Your task to perform on an android device: add a contact Image 0: 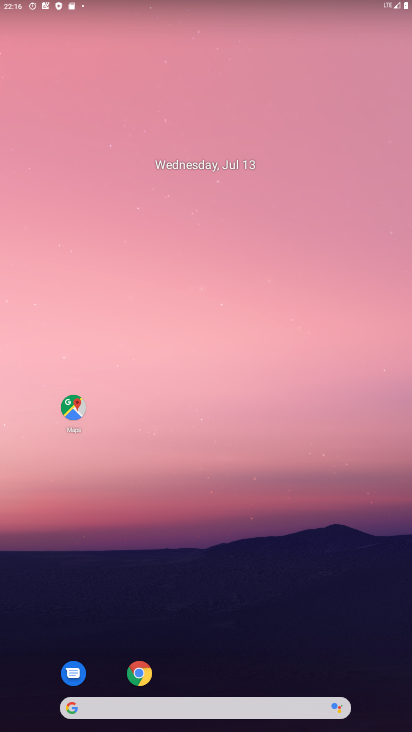
Step 0: drag from (178, 654) to (216, 310)
Your task to perform on an android device: add a contact Image 1: 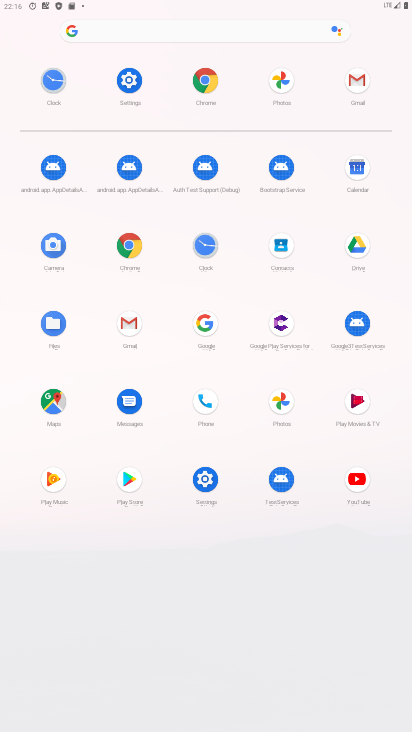
Step 1: click (367, 165)
Your task to perform on an android device: add a contact Image 2: 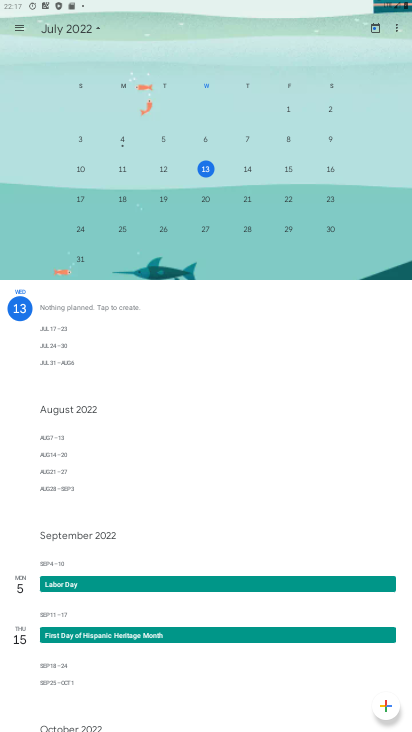
Step 2: press home button
Your task to perform on an android device: add a contact Image 3: 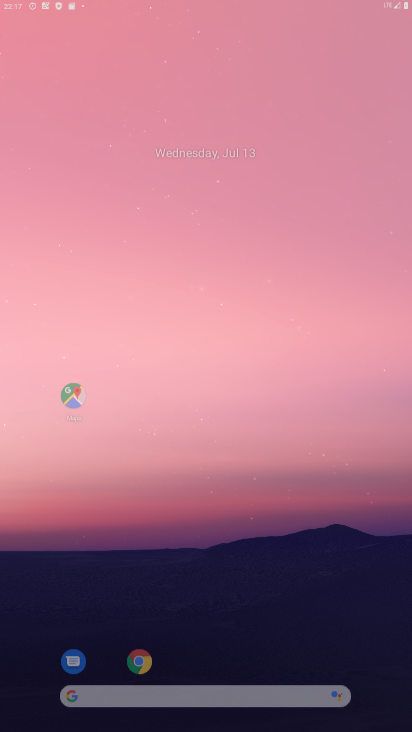
Step 3: drag from (179, 616) to (274, 24)
Your task to perform on an android device: add a contact Image 4: 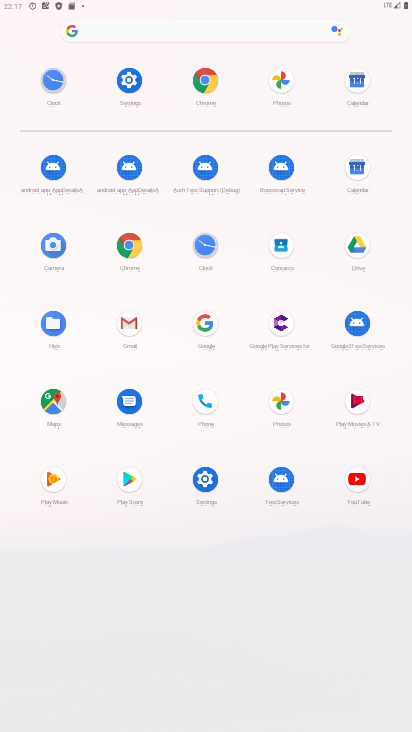
Step 4: click (274, 246)
Your task to perform on an android device: add a contact Image 5: 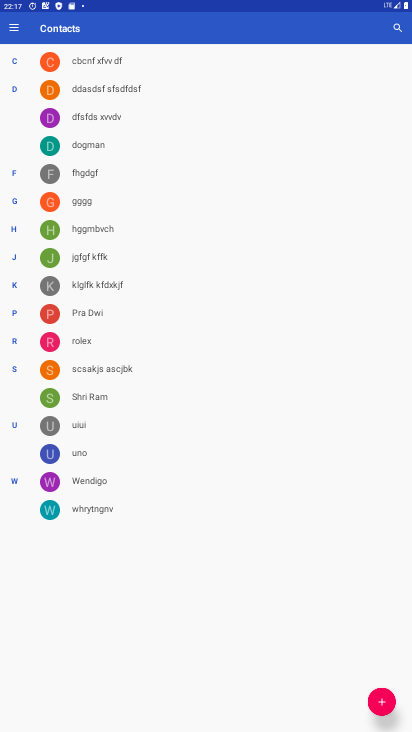
Step 5: click (384, 705)
Your task to perform on an android device: add a contact Image 6: 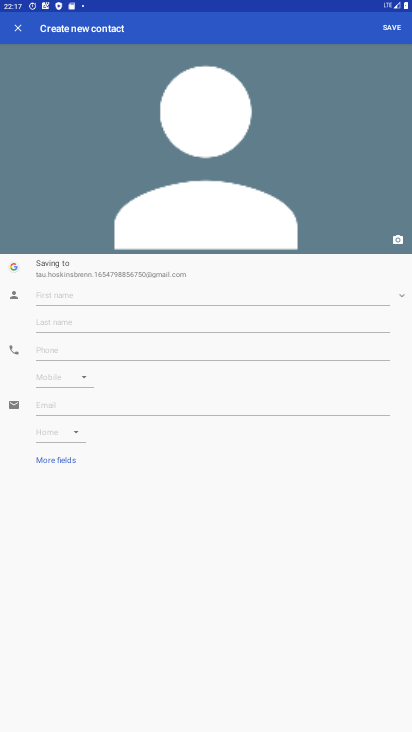
Step 6: click (95, 300)
Your task to perform on an android device: add a contact Image 7: 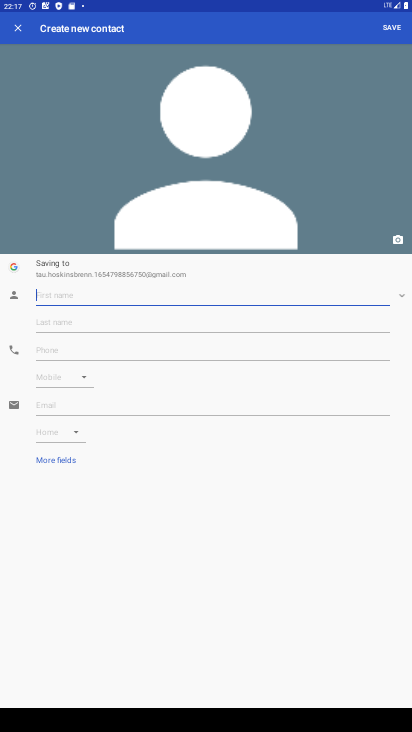
Step 7: type "nvbvx"
Your task to perform on an android device: add a contact Image 8: 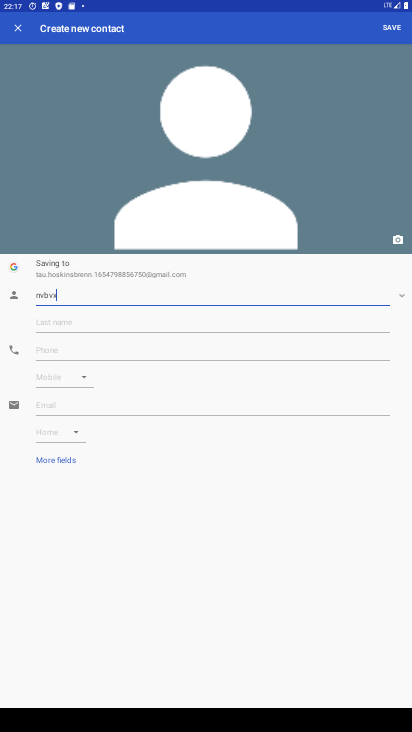
Step 8: click (386, 27)
Your task to perform on an android device: add a contact Image 9: 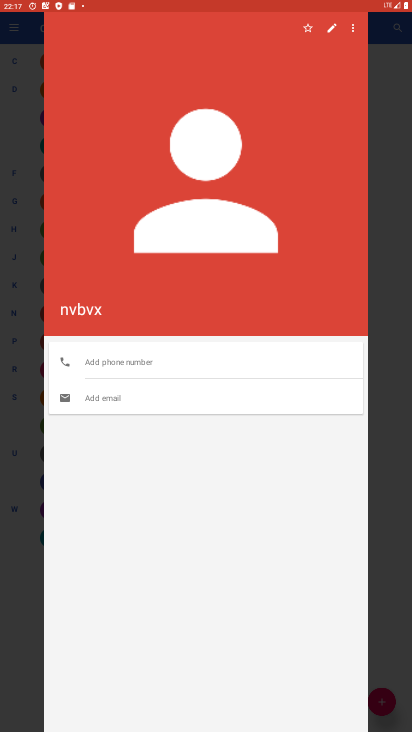
Step 9: task complete